Your task to perform on an android device: turn off airplane mode Image 0: 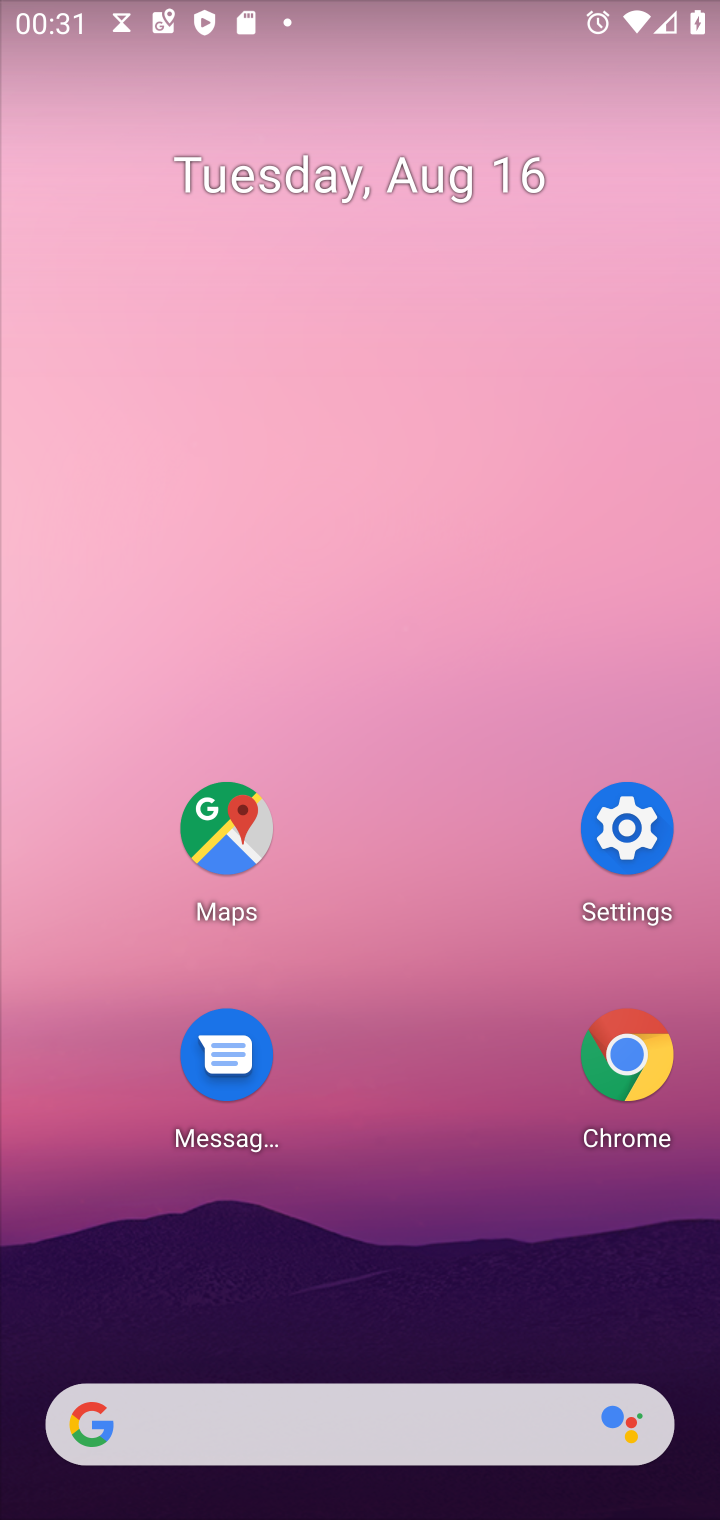
Step 0: press home button
Your task to perform on an android device: turn off airplane mode Image 1: 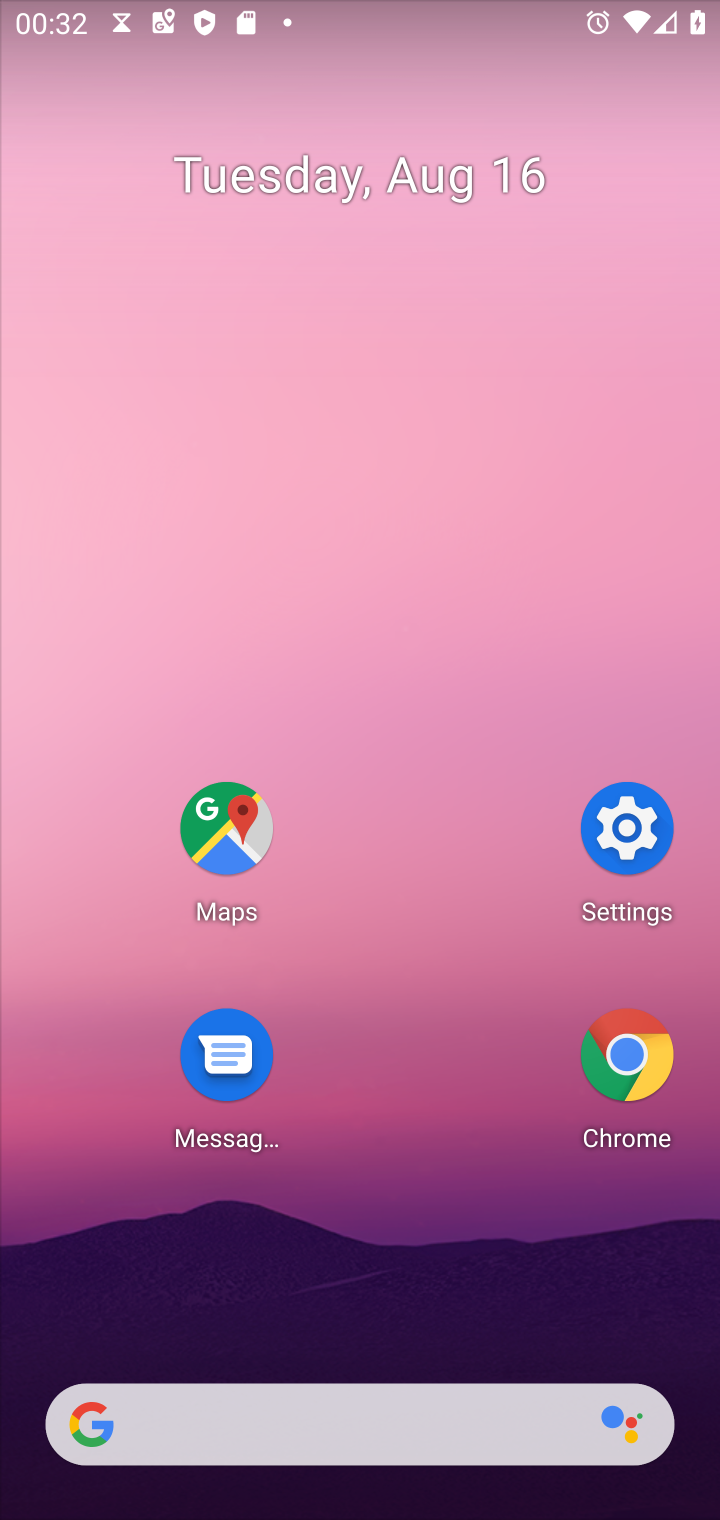
Step 1: click (619, 825)
Your task to perform on an android device: turn off airplane mode Image 2: 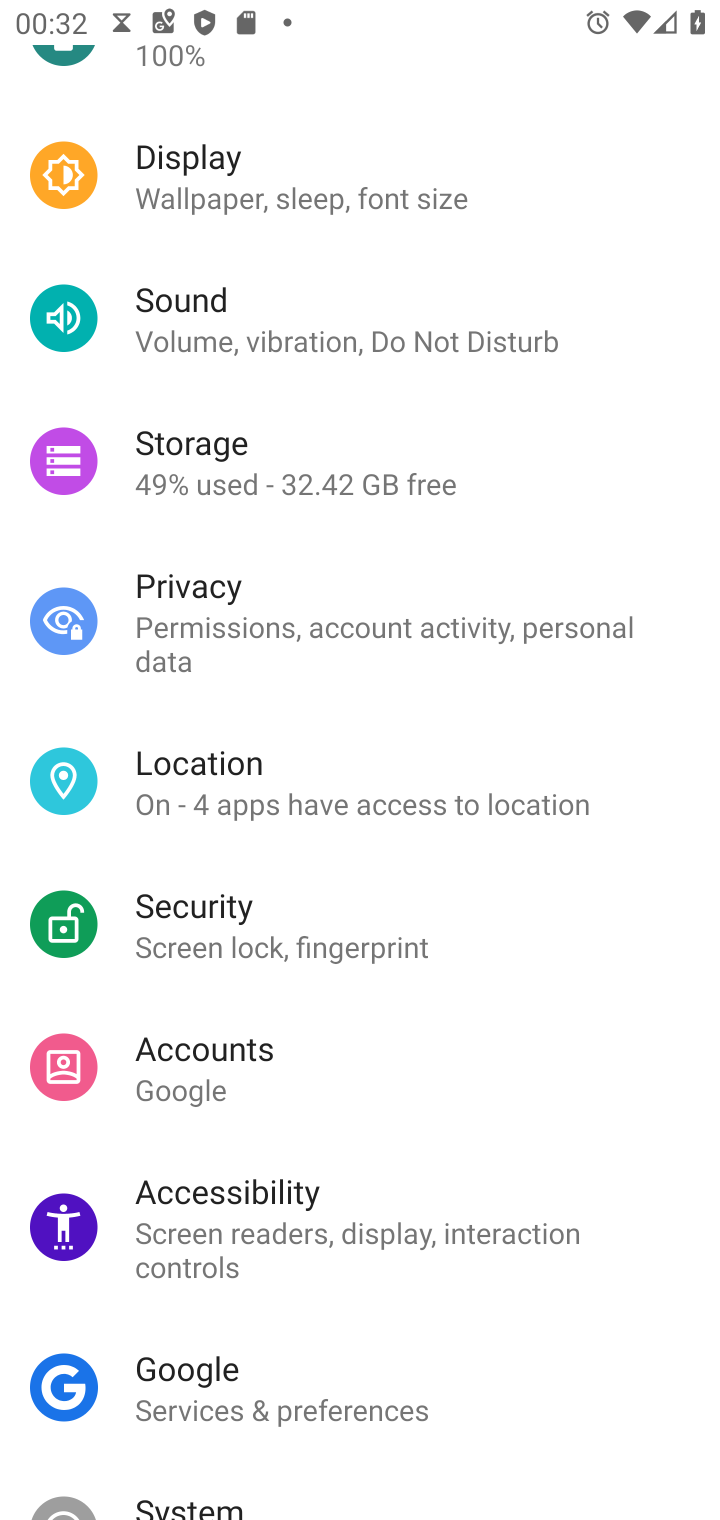
Step 2: drag from (592, 191) to (480, 1341)
Your task to perform on an android device: turn off airplane mode Image 3: 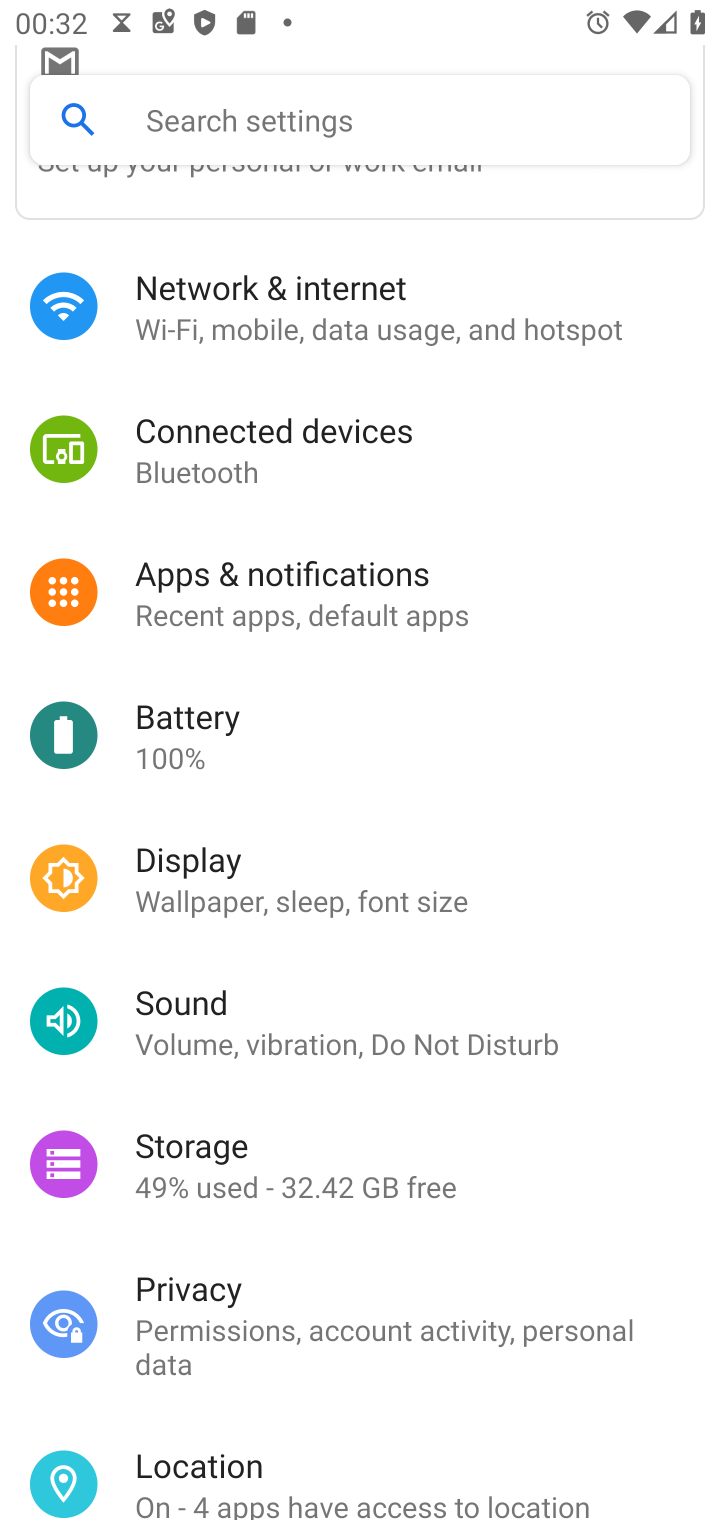
Step 3: click (353, 291)
Your task to perform on an android device: turn off airplane mode Image 4: 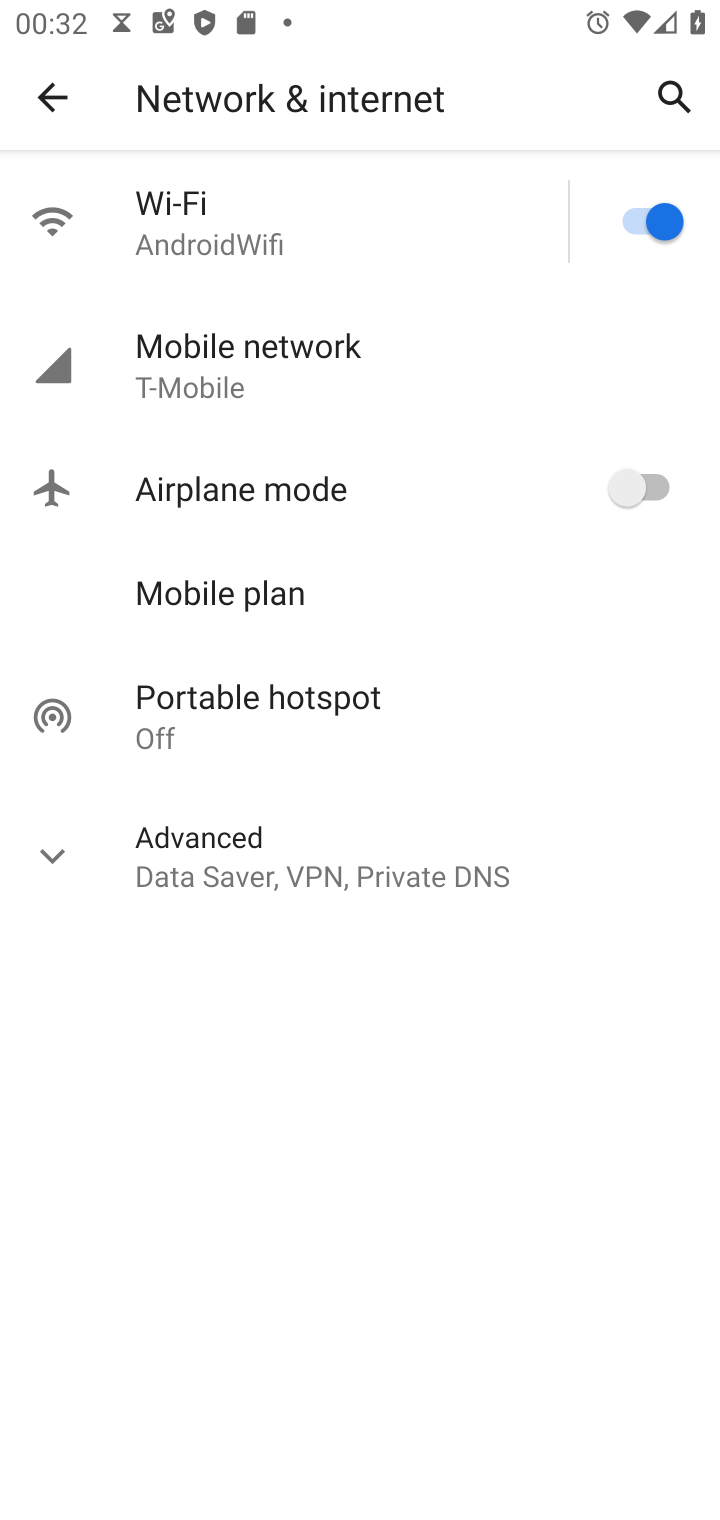
Step 4: task complete